Your task to perform on an android device: Open calendar and show me the fourth week of next month Image 0: 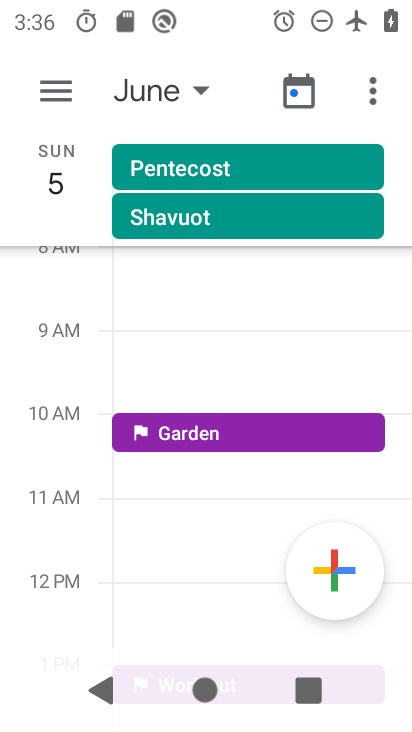
Step 0: press home button
Your task to perform on an android device: Open calendar and show me the fourth week of next month Image 1: 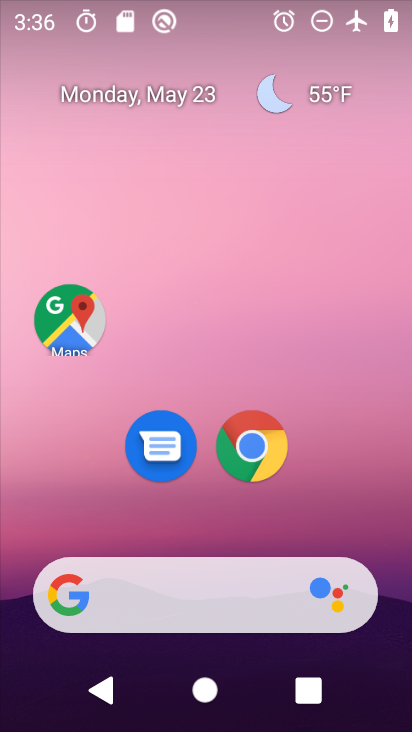
Step 1: drag from (192, 531) to (150, 210)
Your task to perform on an android device: Open calendar and show me the fourth week of next month Image 2: 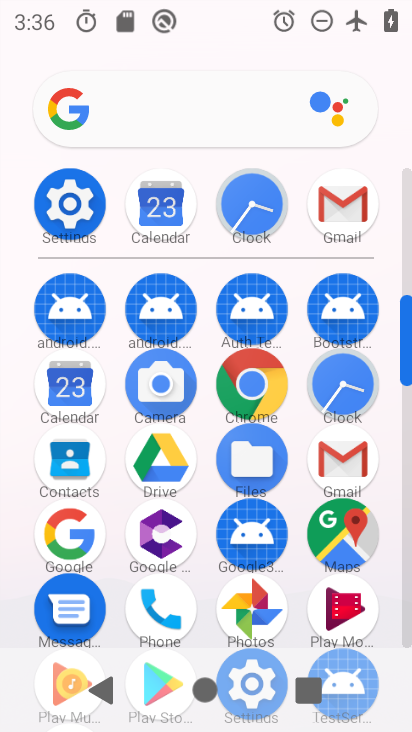
Step 2: click (79, 359)
Your task to perform on an android device: Open calendar and show me the fourth week of next month Image 3: 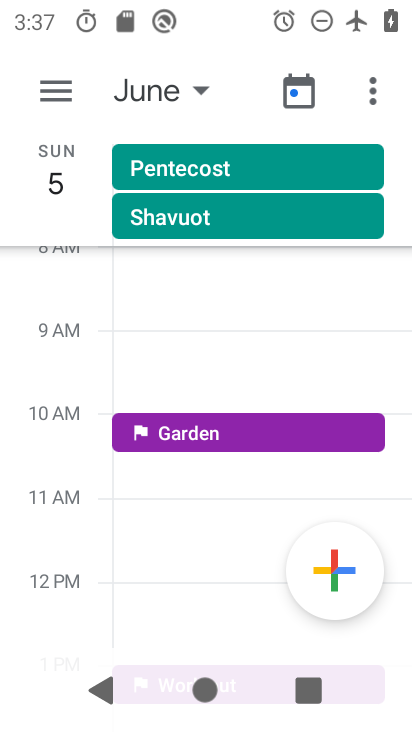
Step 3: click (189, 86)
Your task to perform on an android device: Open calendar and show me the fourth week of next month Image 4: 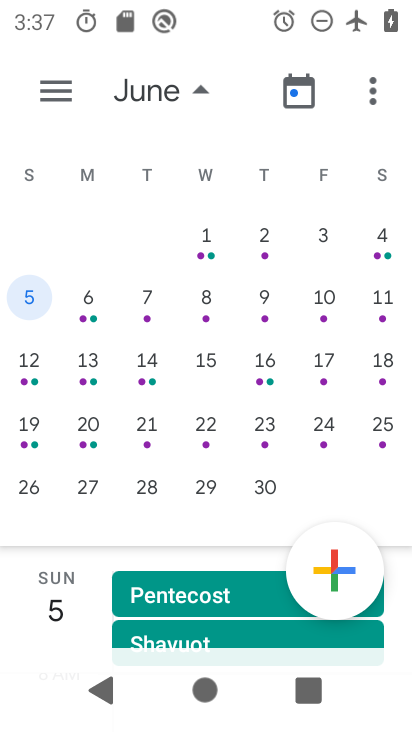
Step 4: click (36, 422)
Your task to perform on an android device: Open calendar and show me the fourth week of next month Image 5: 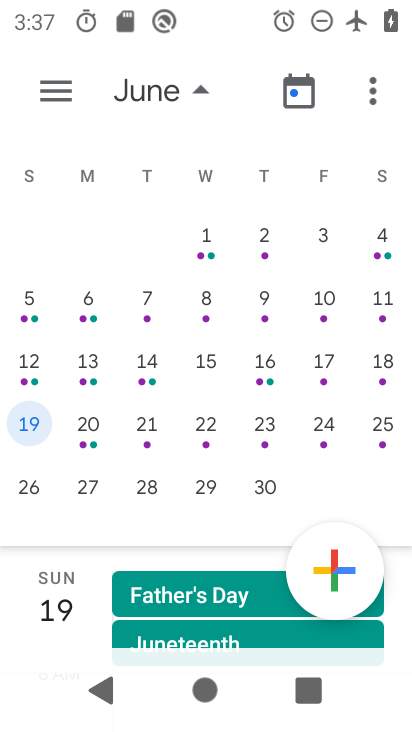
Step 5: task complete